Your task to perform on an android device: Open Google Chrome and click the shortcut for Amazon.com Image 0: 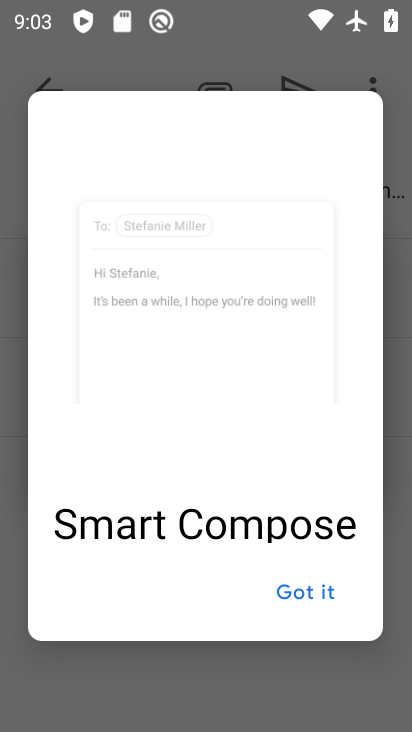
Step 0: press home button
Your task to perform on an android device: Open Google Chrome and click the shortcut for Amazon.com Image 1: 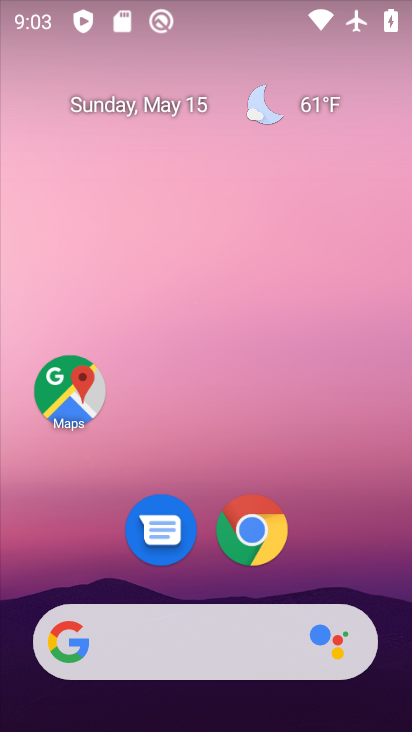
Step 1: click (259, 529)
Your task to perform on an android device: Open Google Chrome and click the shortcut for Amazon.com Image 2: 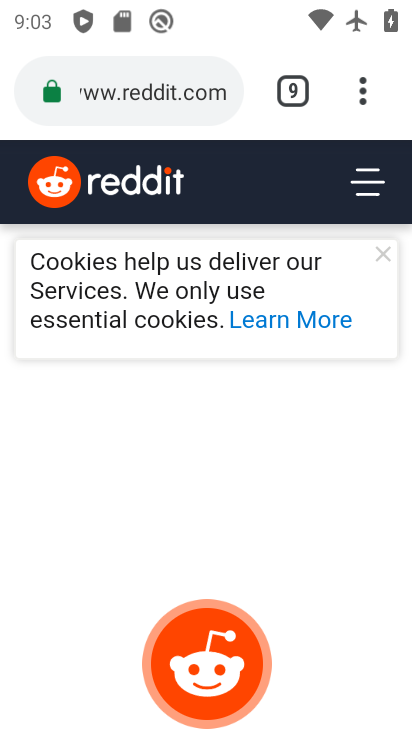
Step 2: click (362, 100)
Your task to perform on an android device: Open Google Chrome and click the shortcut for Amazon.com Image 3: 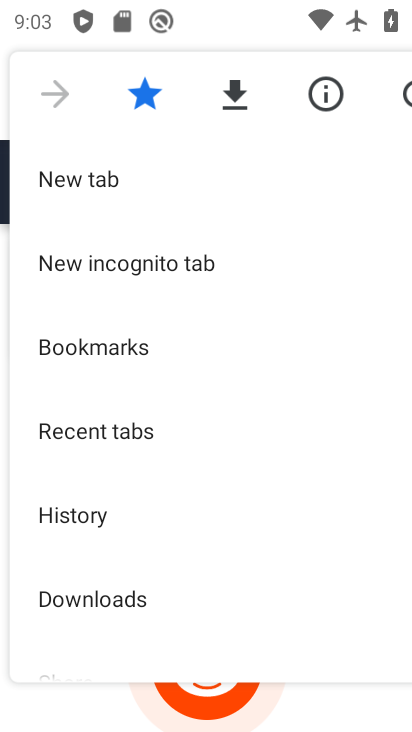
Step 3: click (80, 183)
Your task to perform on an android device: Open Google Chrome and click the shortcut for Amazon.com Image 4: 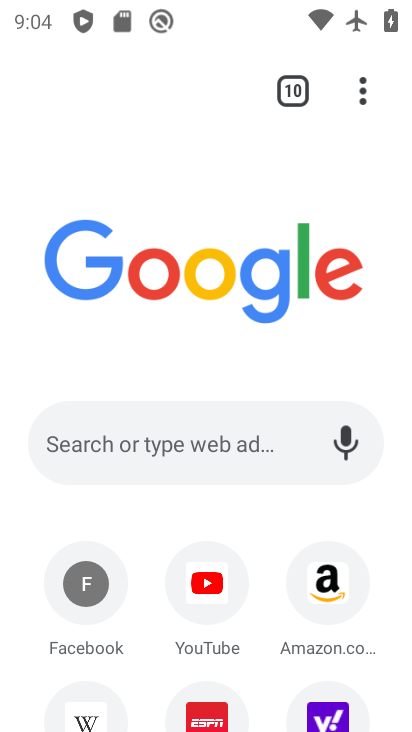
Step 4: click (336, 590)
Your task to perform on an android device: Open Google Chrome and click the shortcut for Amazon.com Image 5: 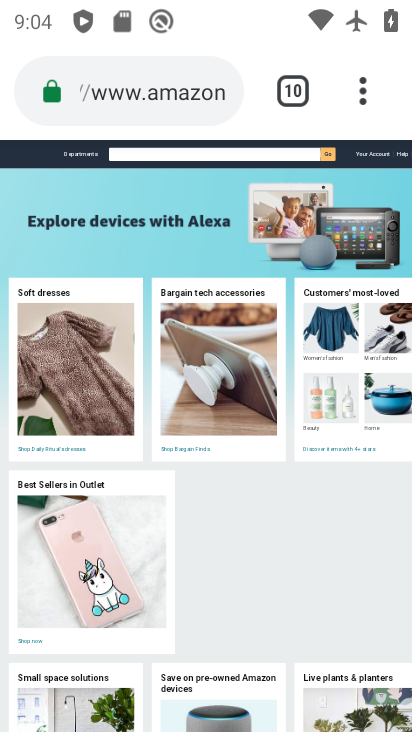
Step 5: task complete